Your task to perform on an android device: What is the news today? Image 0: 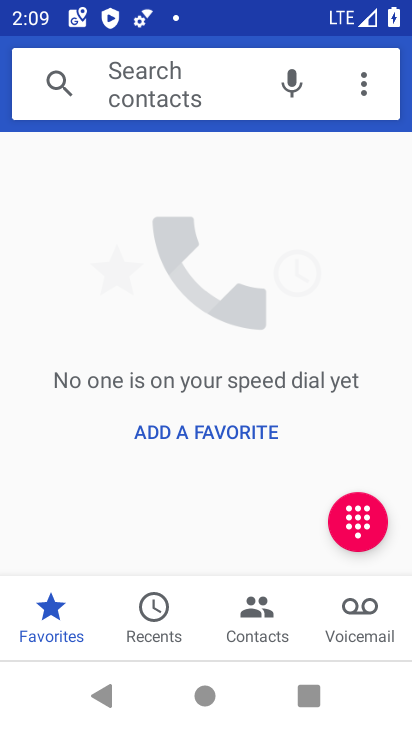
Step 0: press home button
Your task to perform on an android device: What is the news today? Image 1: 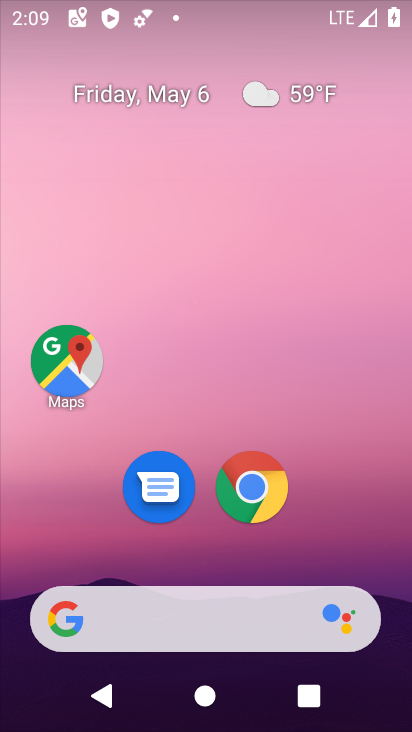
Step 1: drag from (222, 628) to (258, 212)
Your task to perform on an android device: What is the news today? Image 2: 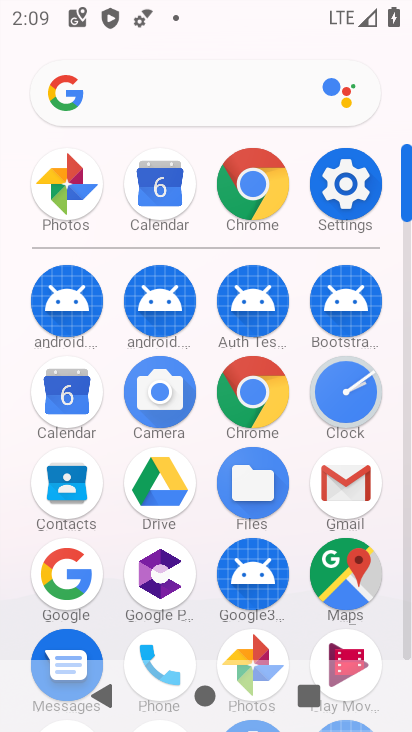
Step 2: click (82, 584)
Your task to perform on an android device: What is the news today? Image 3: 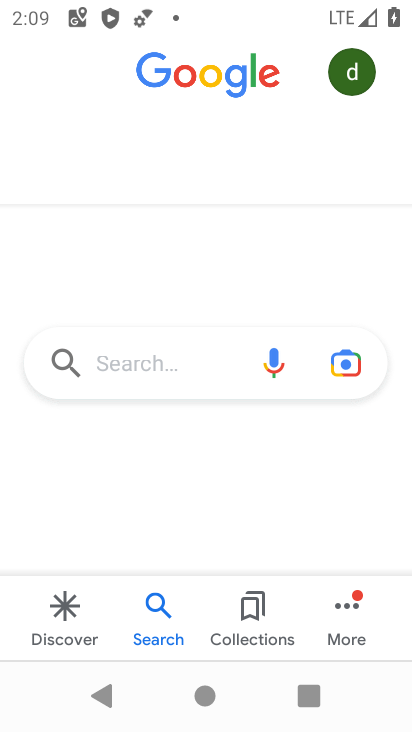
Step 3: click (195, 362)
Your task to perform on an android device: What is the news today? Image 4: 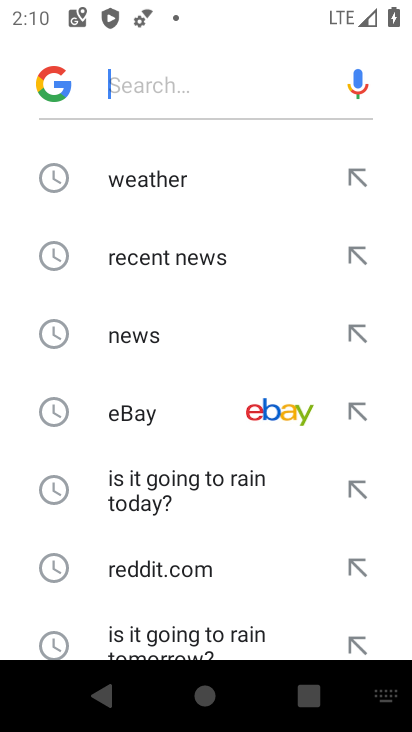
Step 4: click (201, 325)
Your task to perform on an android device: What is the news today? Image 5: 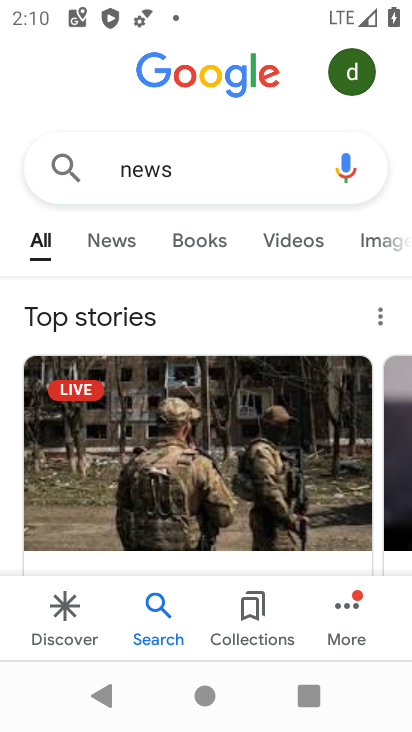
Step 5: click (119, 240)
Your task to perform on an android device: What is the news today? Image 6: 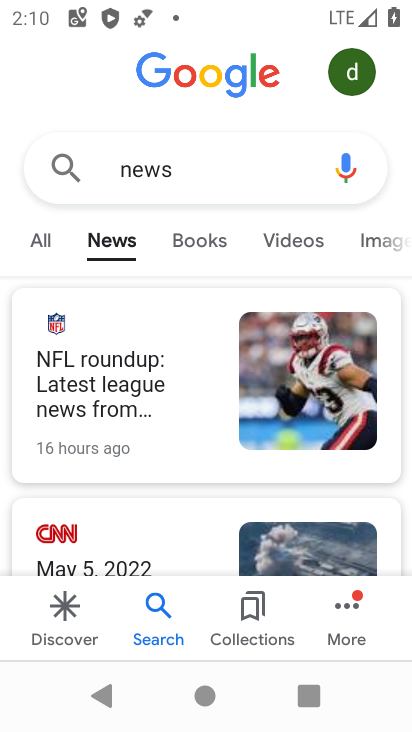
Step 6: task complete